Your task to perform on an android device: turn pop-ups on in chrome Image 0: 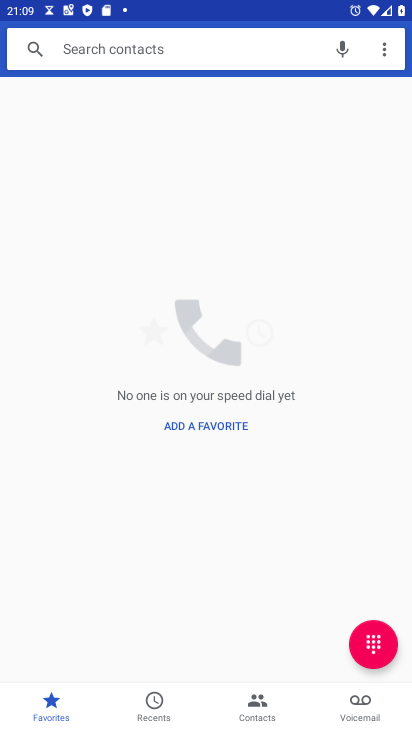
Step 0: press home button
Your task to perform on an android device: turn pop-ups on in chrome Image 1: 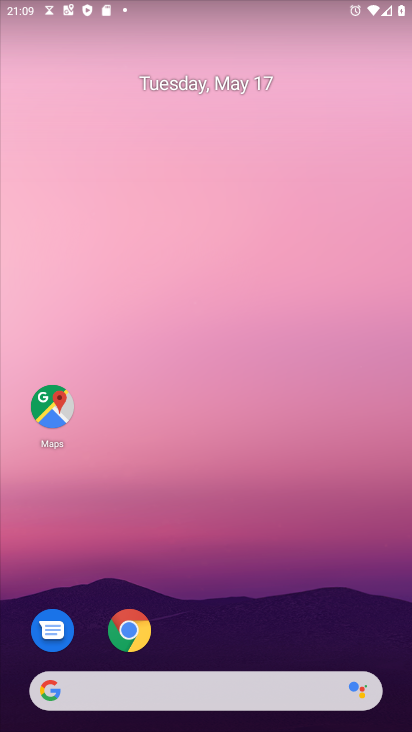
Step 1: click (138, 633)
Your task to perform on an android device: turn pop-ups on in chrome Image 2: 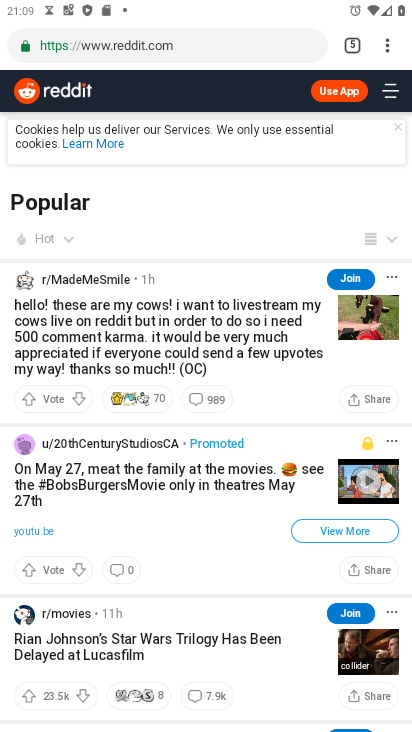
Step 2: click (387, 43)
Your task to perform on an android device: turn pop-ups on in chrome Image 3: 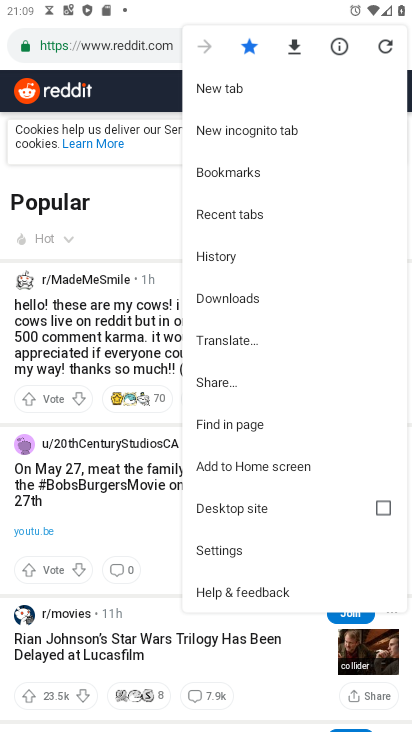
Step 3: click (238, 549)
Your task to perform on an android device: turn pop-ups on in chrome Image 4: 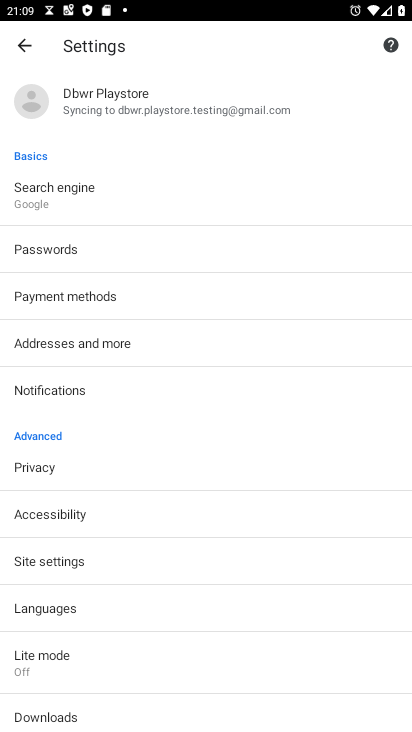
Step 4: click (45, 558)
Your task to perform on an android device: turn pop-ups on in chrome Image 5: 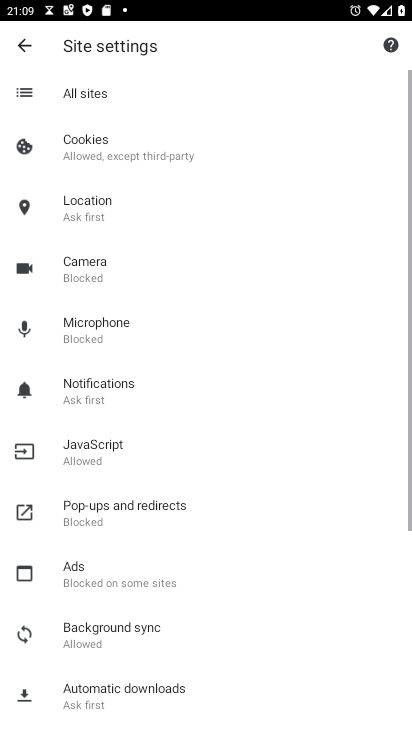
Step 5: click (84, 515)
Your task to perform on an android device: turn pop-ups on in chrome Image 6: 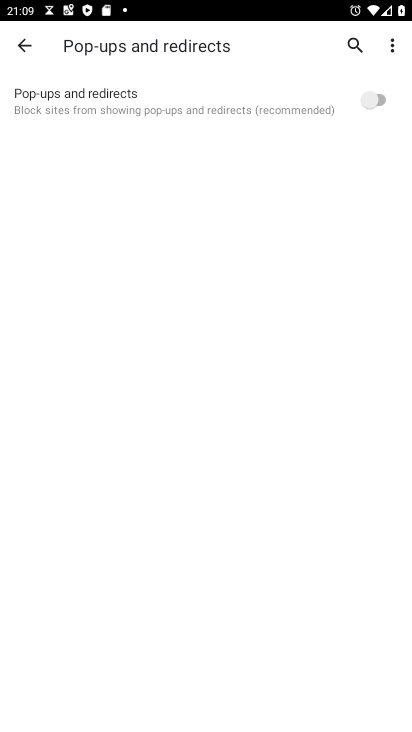
Step 6: click (379, 105)
Your task to perform on an android device: turn pop-ups on in chrome Image 7: 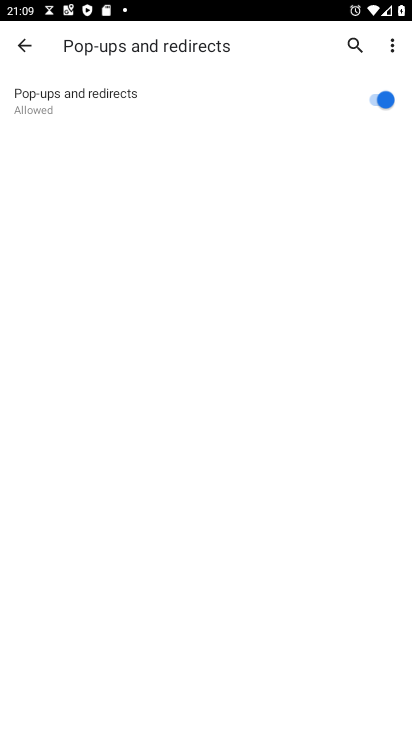
Step 7: task complete